Your task to perform on an android device: remove spam from my inbox in the gmail app Image 0: 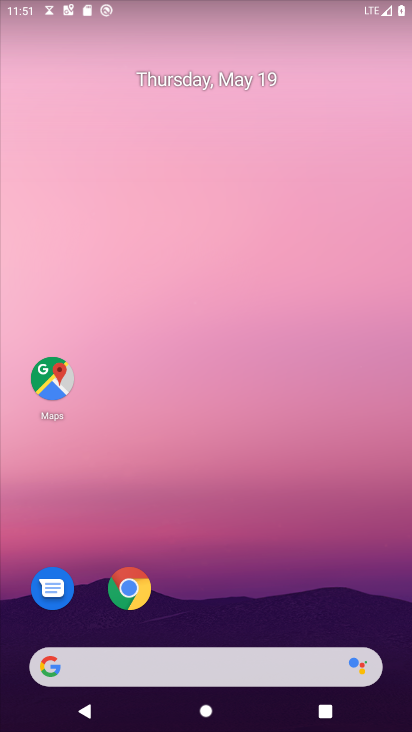
Step 0: drag from (276, 588) to (143, 38)
Your task to perform on an android device: remove spam from my inbox in the gmail app Image 1: 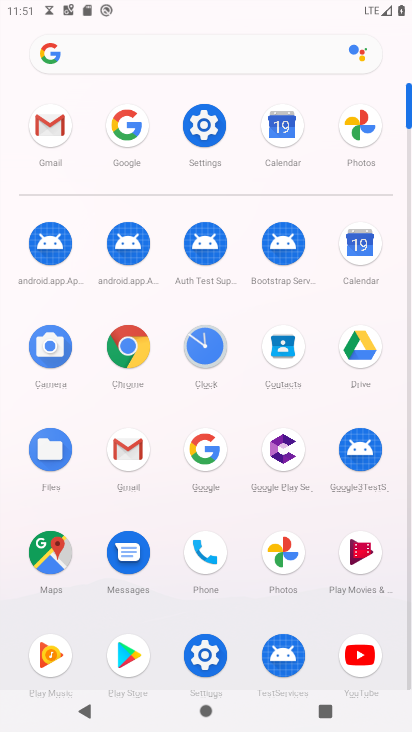
Step 1: click (122, 448)
Your task to perform on an android device: remove spam from my inbox in the gmail app Image 2: 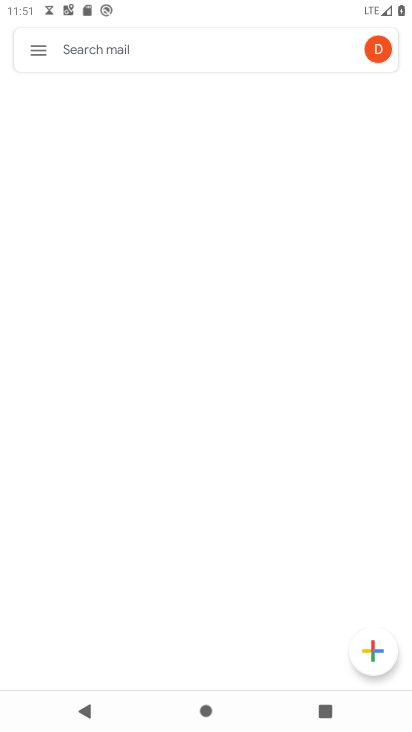
Step 2: click (32, 44)
Your task to perform on an android device: remove spam from my inbox in the gmail app Image 3: 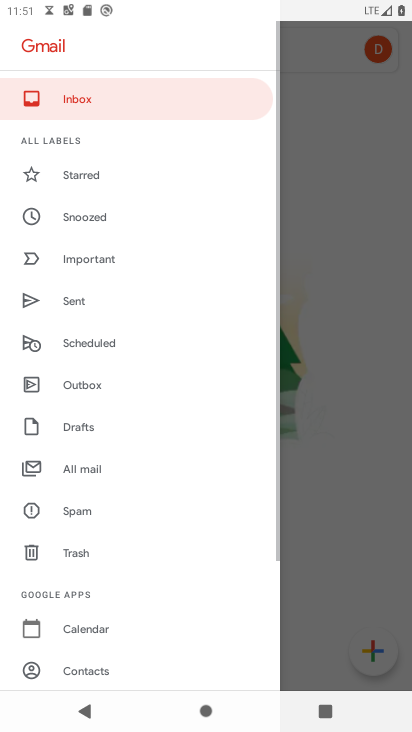
Step 3: click (126, 495)
Your task to perform on an android device: remove spam from my inbox in the gmail app Image 4: 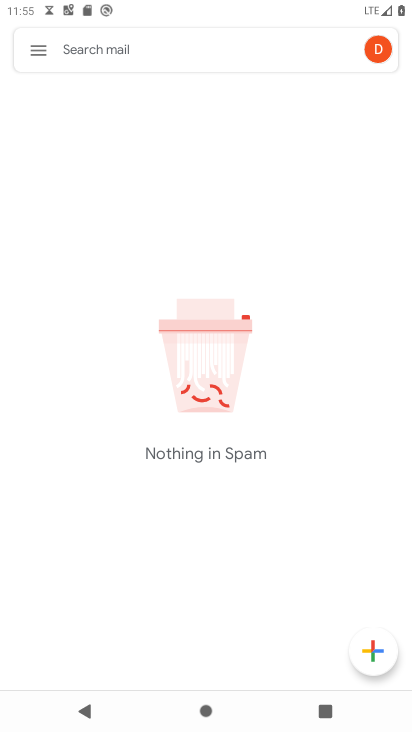
Step 4: task complete